Your task to perform on an android device: check the backup settings in the google photos Image 0: 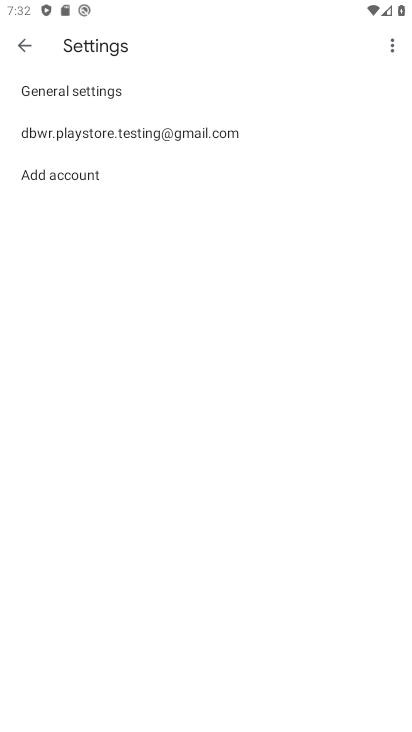
Step 0: press home button
Your task to perform on an android device: check the backup settings in the google photos Image 1: 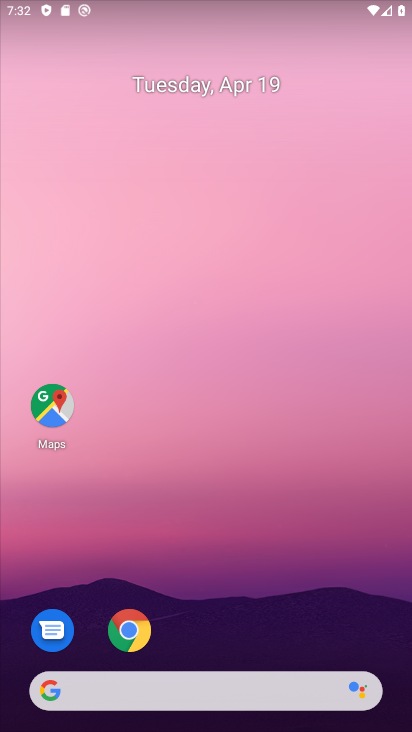
Step 1: drag from (235, 657) to (198, 65)
Your task to perform on an android device: check the backup settings in the google photos Image 2: 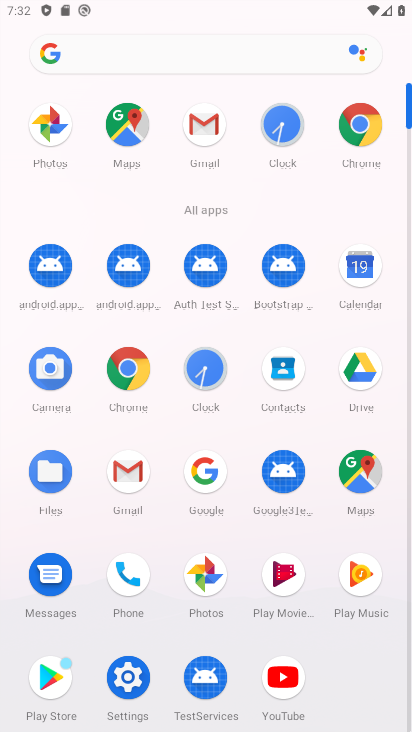
Step 2: click (59, 137)
Your task to perform on an android device: check the backup settings in the google photos Image 3: 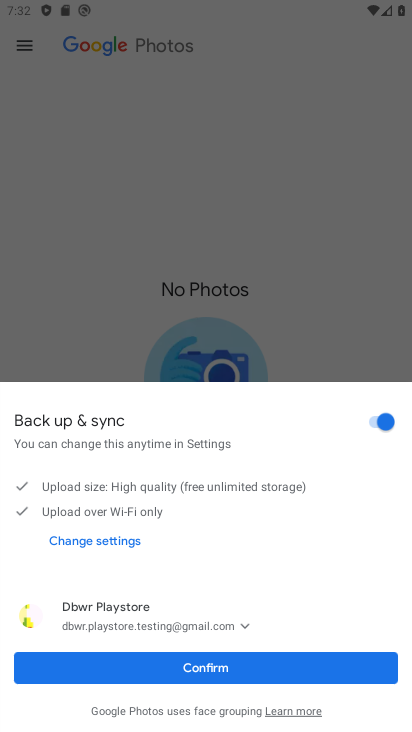
Step 3: click (198, 667)
Your task to perform on an android device: check the backup settings in the google photos Image 4: 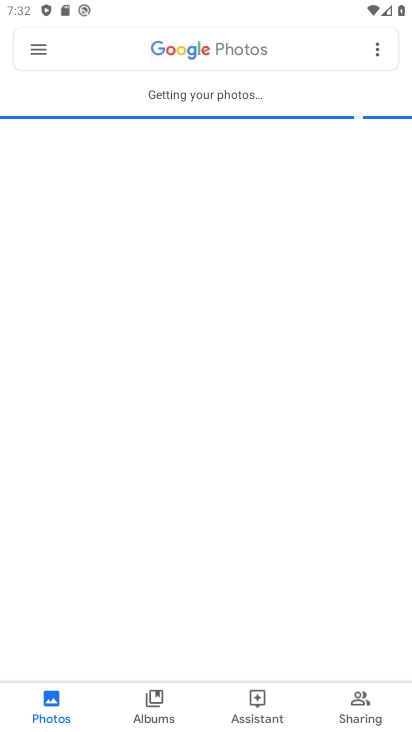
Step 4: click (39, 32)
Your task to perform on an android device: check the backup settings in the google photos Image 5: 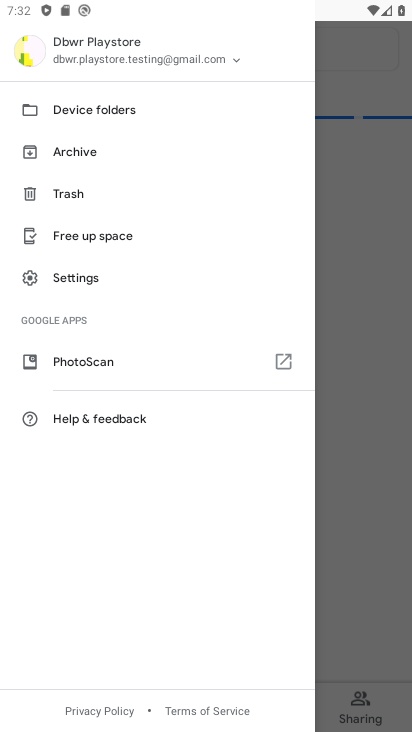
Step 5: click (87, 59)
Your task to perform on an android device: check the backup settings in the google photos Image 6: 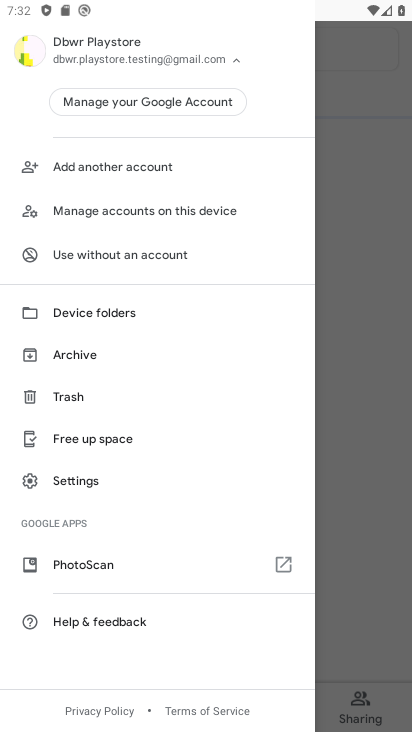
Step 6: click (61, 477)
Your task to perform on an android device: check the backup settings in the google photos Image 7: 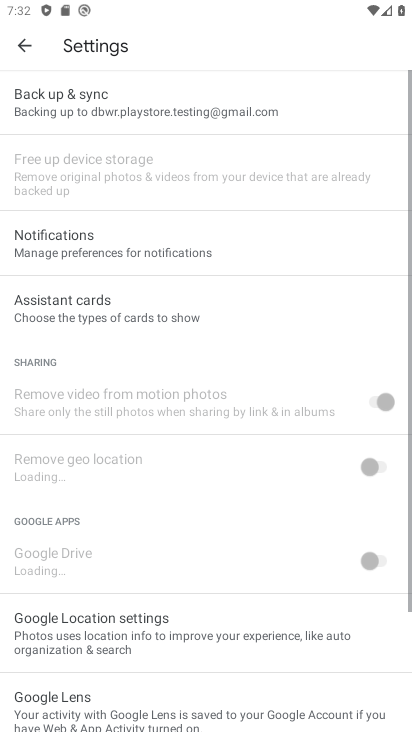
Step 7: click (61, 477)
Your task to perform on an android device: check the backup settings in the google photos Image 8: 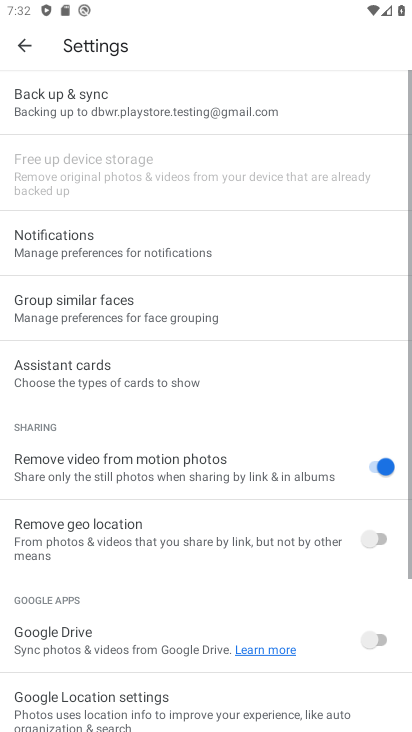
Step 8: click (80, 80)
Your task to perform on an android device: check the backup settings in the google photos Image 9: 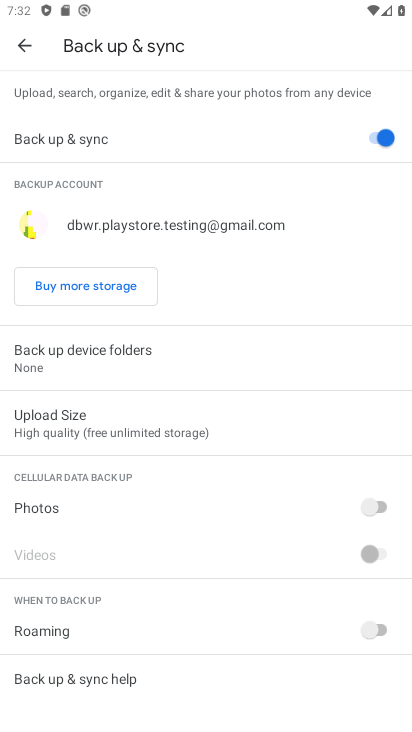
Step 9: task complete